Your task to perform on an android device: stop showing notifications on the lock screen Image 0: 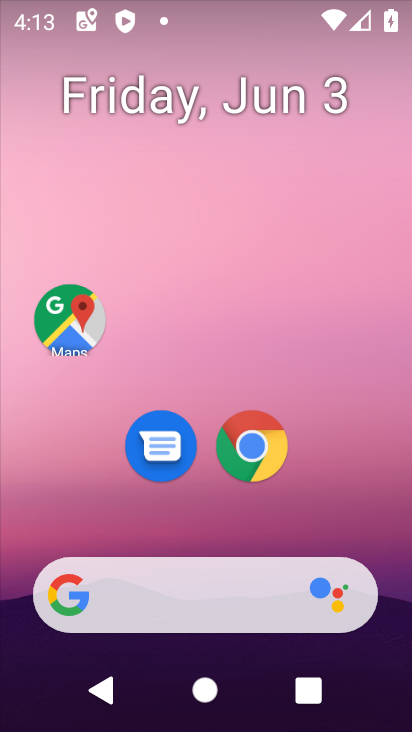
Step 0: task complete